Your task to perform on an android device: Clear the cart on bestbuy. Image 0: 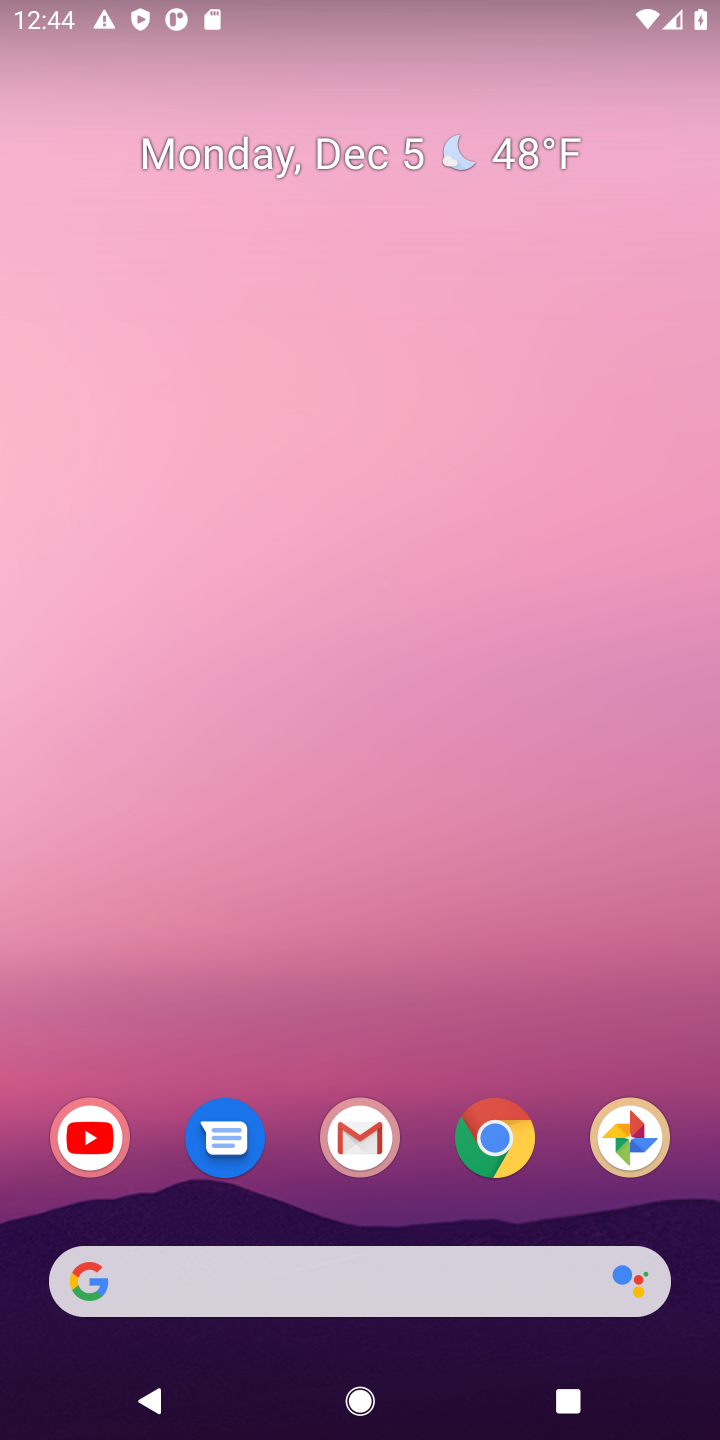
Step 0: click (494, 1115)
Your task to perform on an android device: Clear the cart on bestbuy. Image 1: 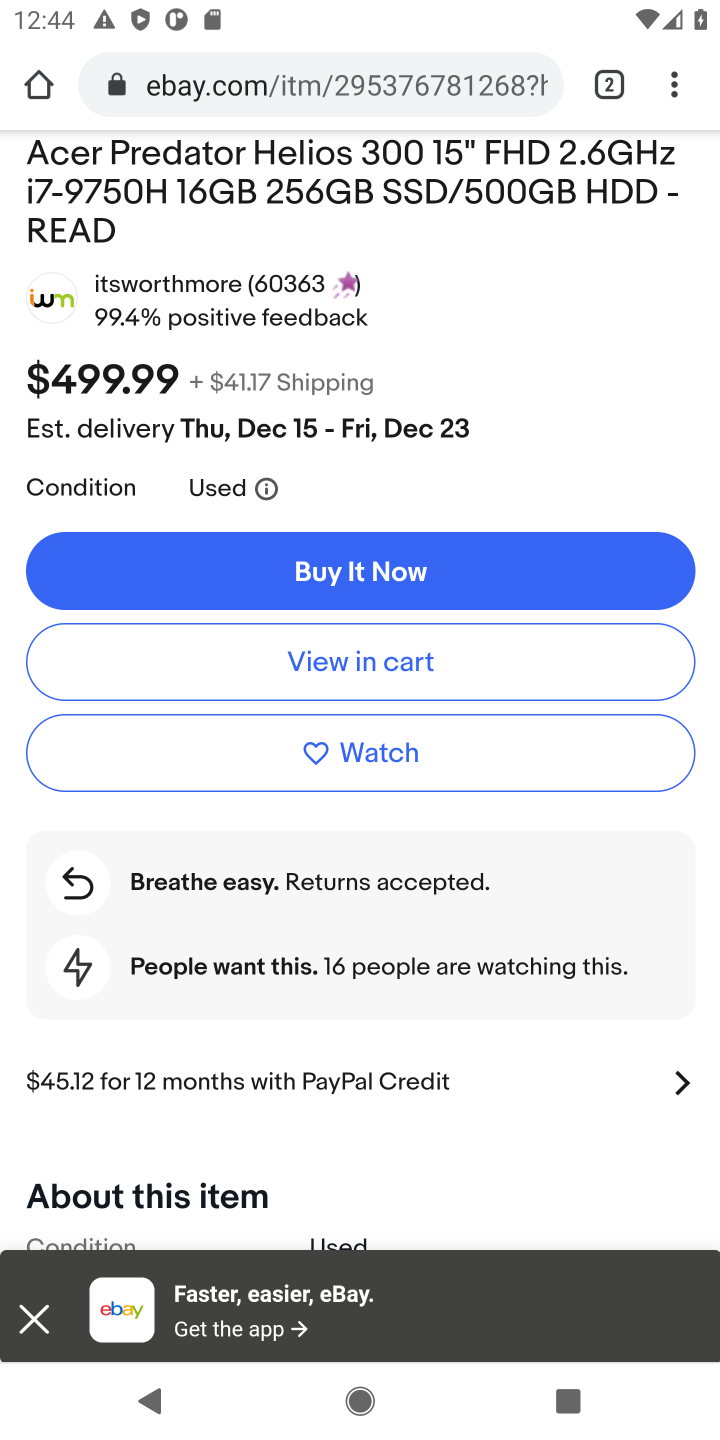
Step 1: drag from (438, 359) to (260, 1231)
Your task to perform on an android device: Clear the cart on bestbuy. Image 2: 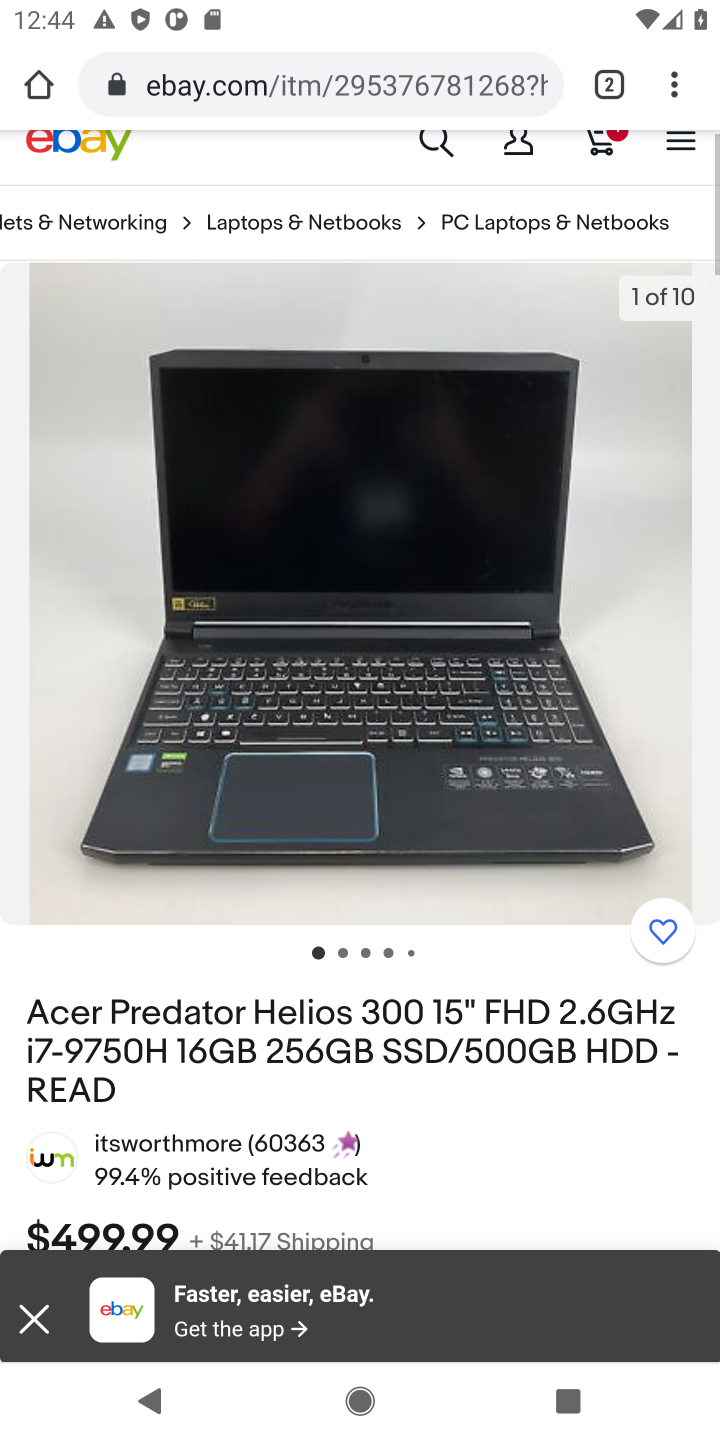
Step 2: click (456, 88)
Your task to perform on an android device: Clear the cart on bestbuy. Image 3: 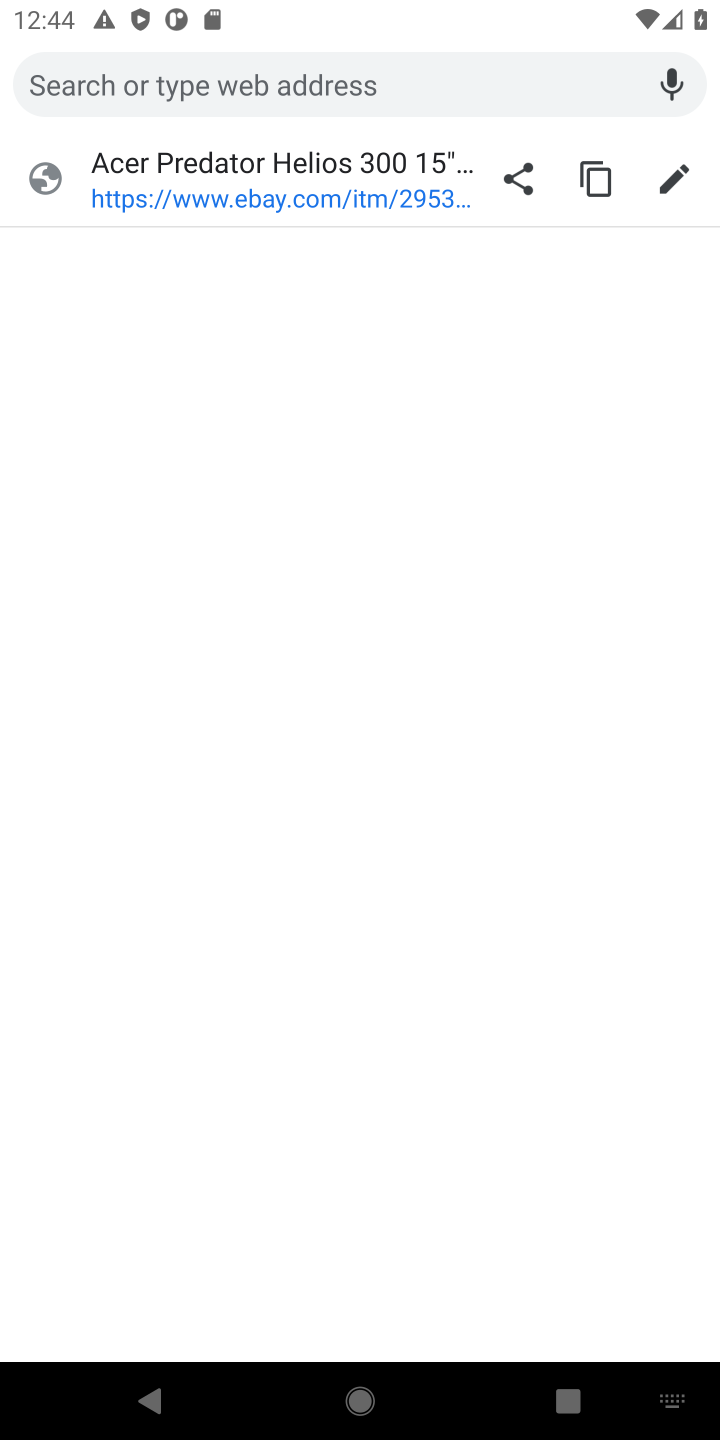
Step 3: type "bestbuy"
Your task to perform on an android device: Clear the cart on bestbuy. Image 4: 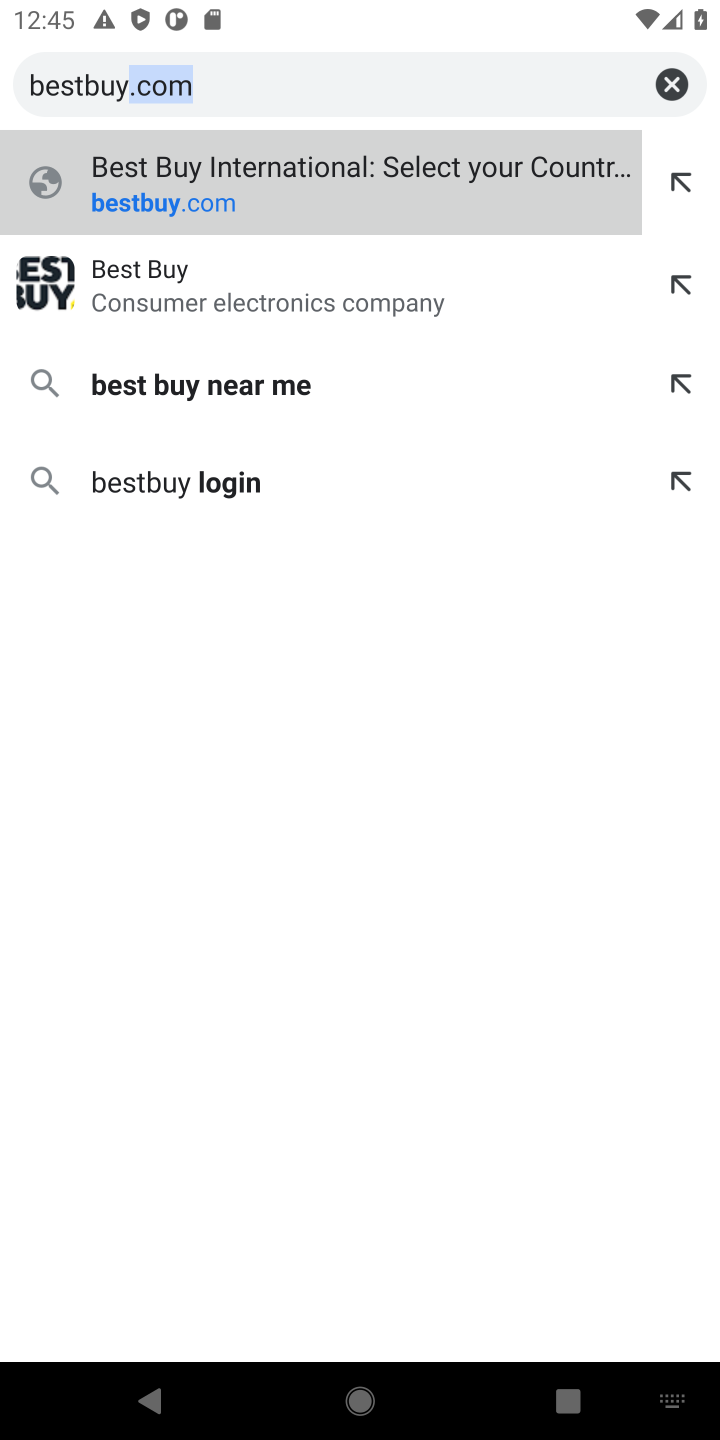
Step 4: click (115, 180)
Your task to perform on an android device: Clear the cart on bestbuy. Image 5: 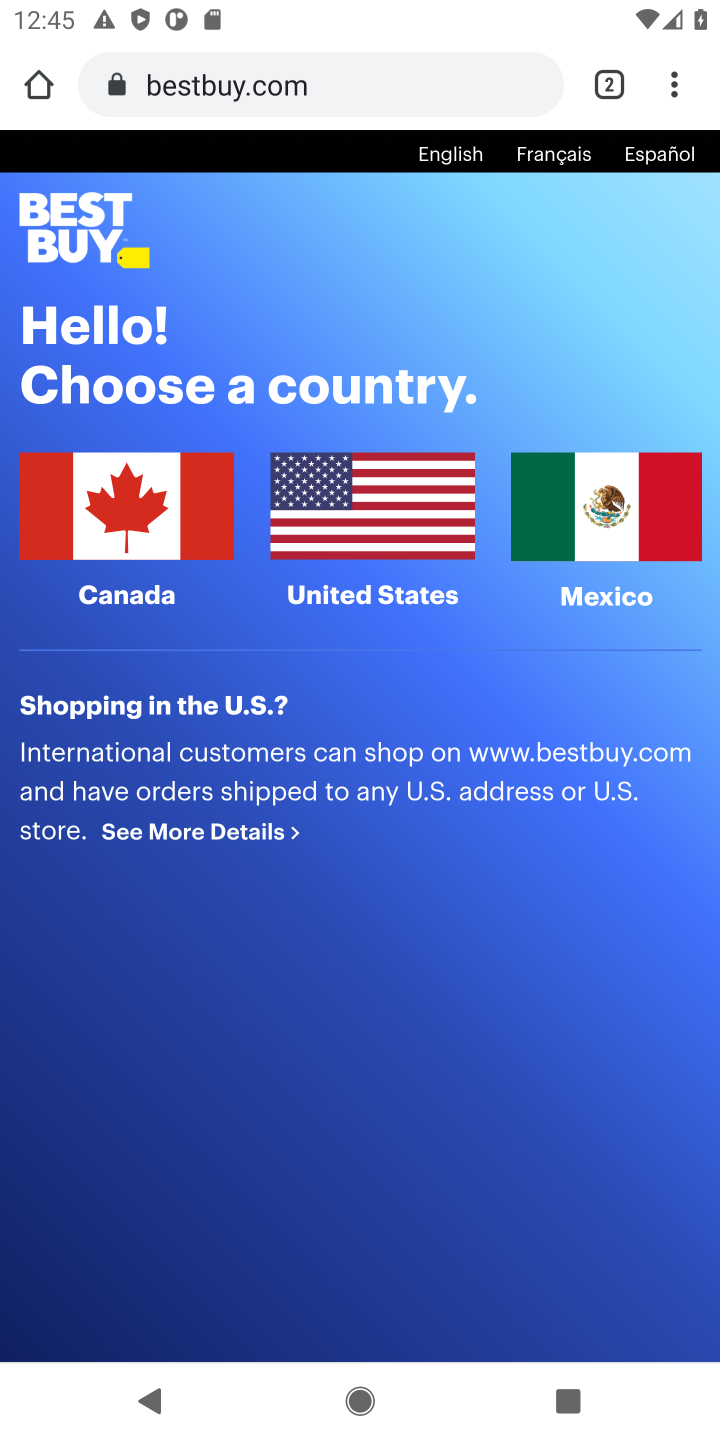
Step 5: click (382, 454)
Your task to perform on an android device: Clear the cart on bestbuy. Image 6: 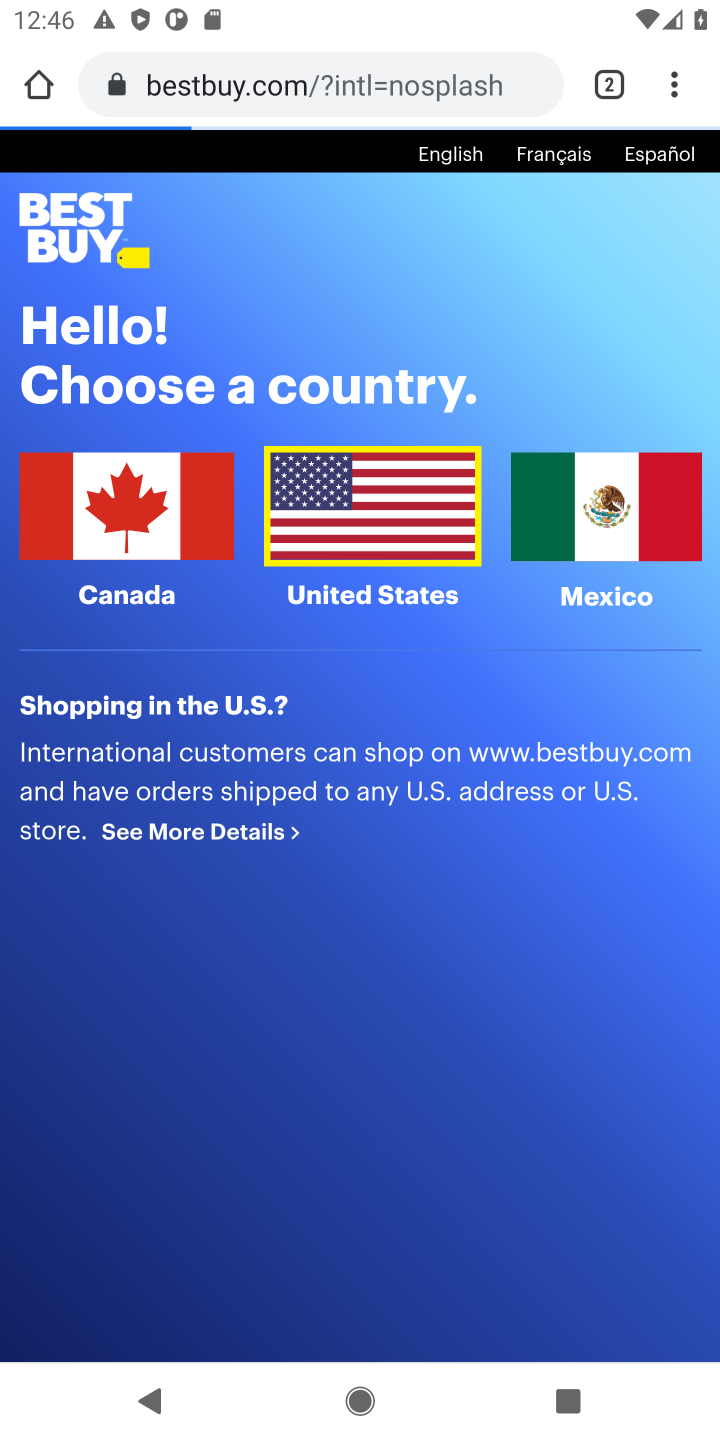
Step 6: click (382, 454)
Your task to perform on an android device: Clear the cart on bestbuy. Image 7: 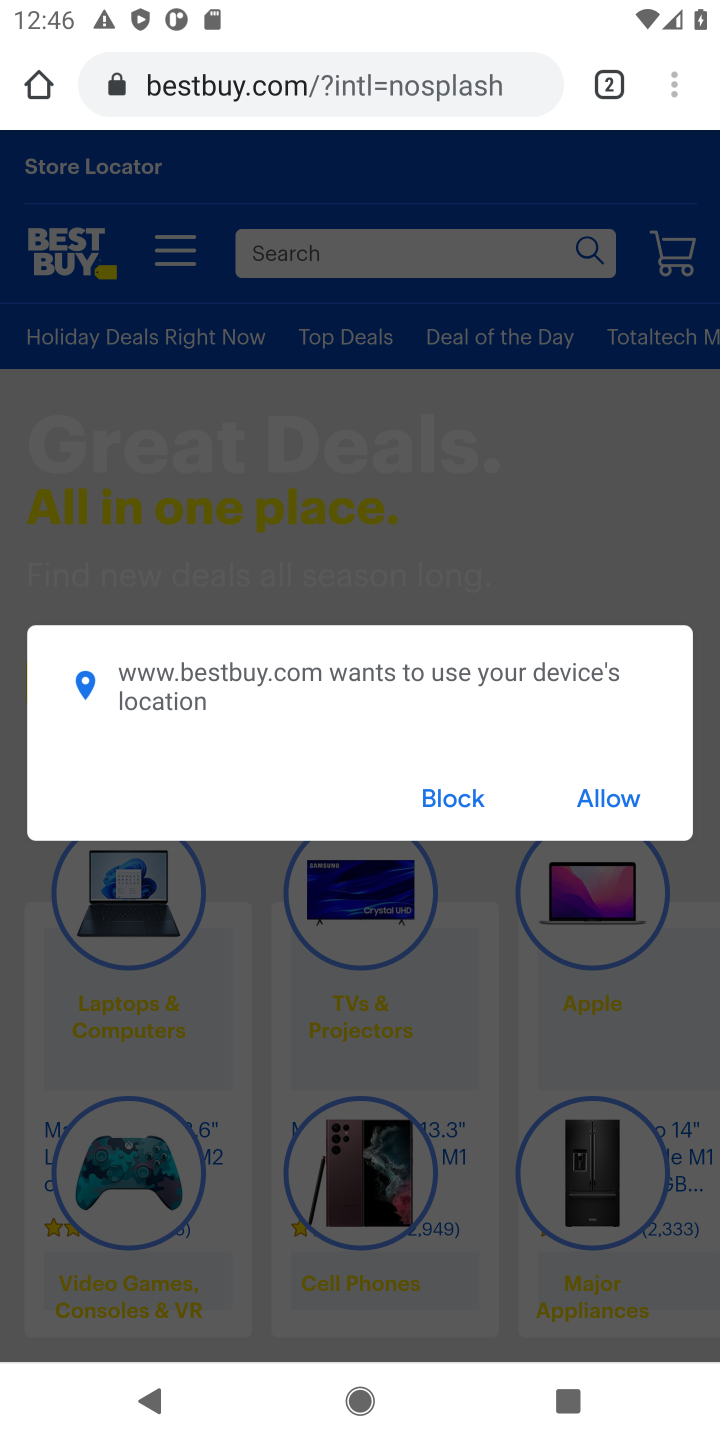
Step 7: click (662, 267)
Your task to perform on an android device: Clear the cart on bestbuy. Image 8: 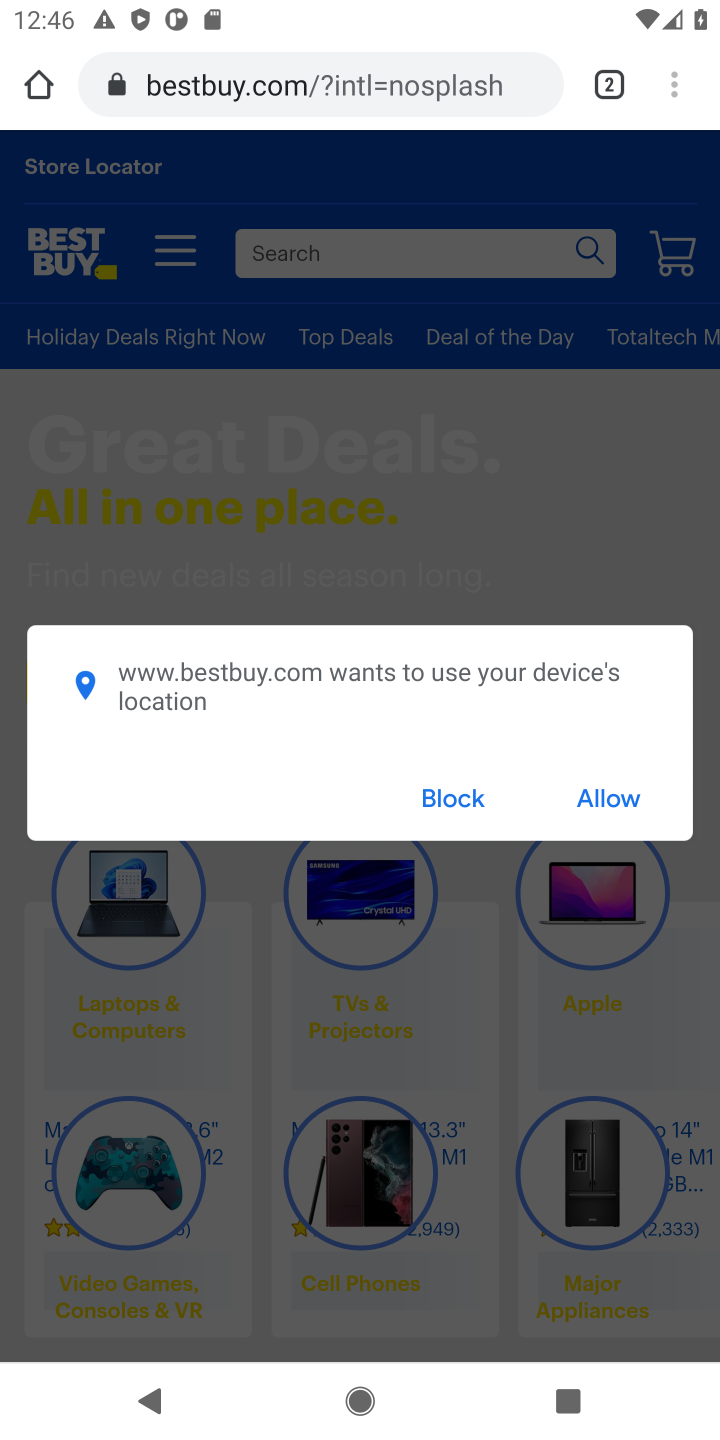
Step 8: click (606, 783)
Your task to perform on an android device: Clear the cart on bestbuy. Image 9: 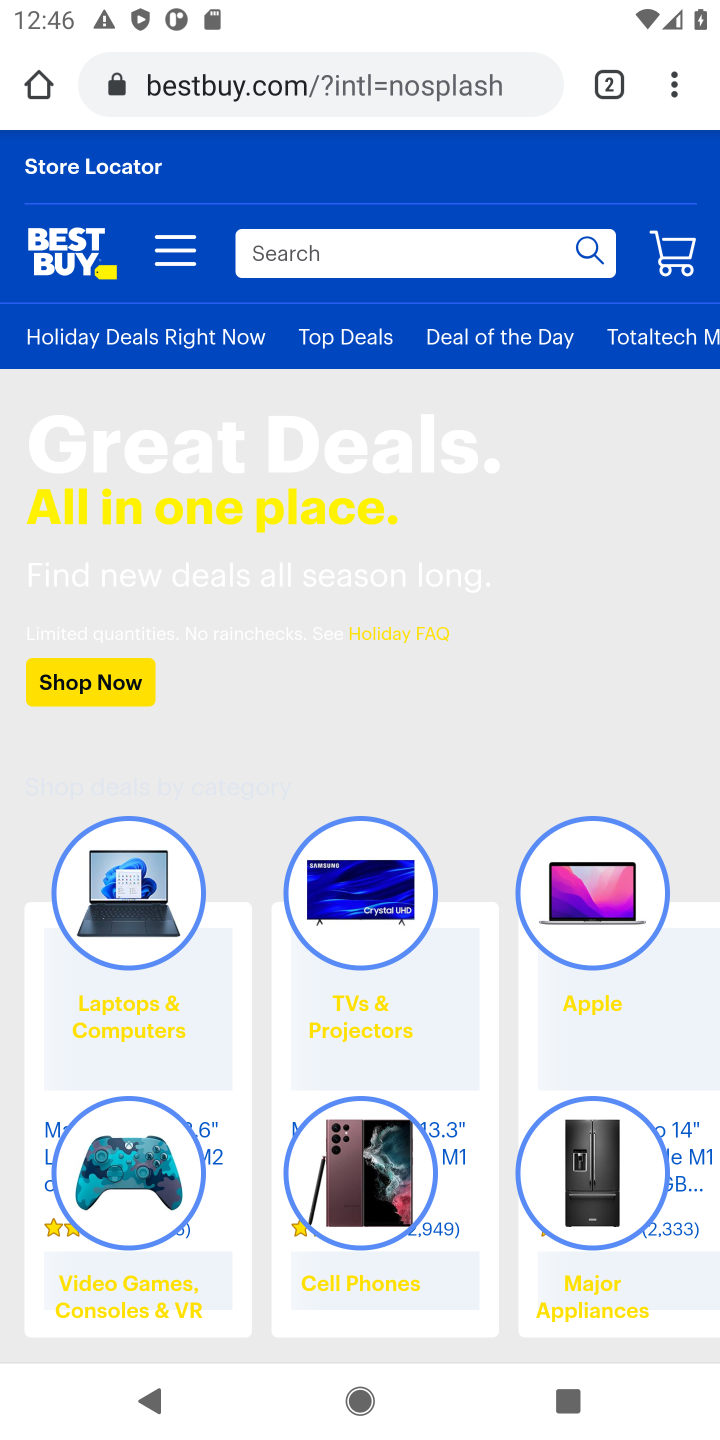
Step 9: click (606, 783)
Your task to perform on an android device: Clear the cart on bestbuy. Image 10: 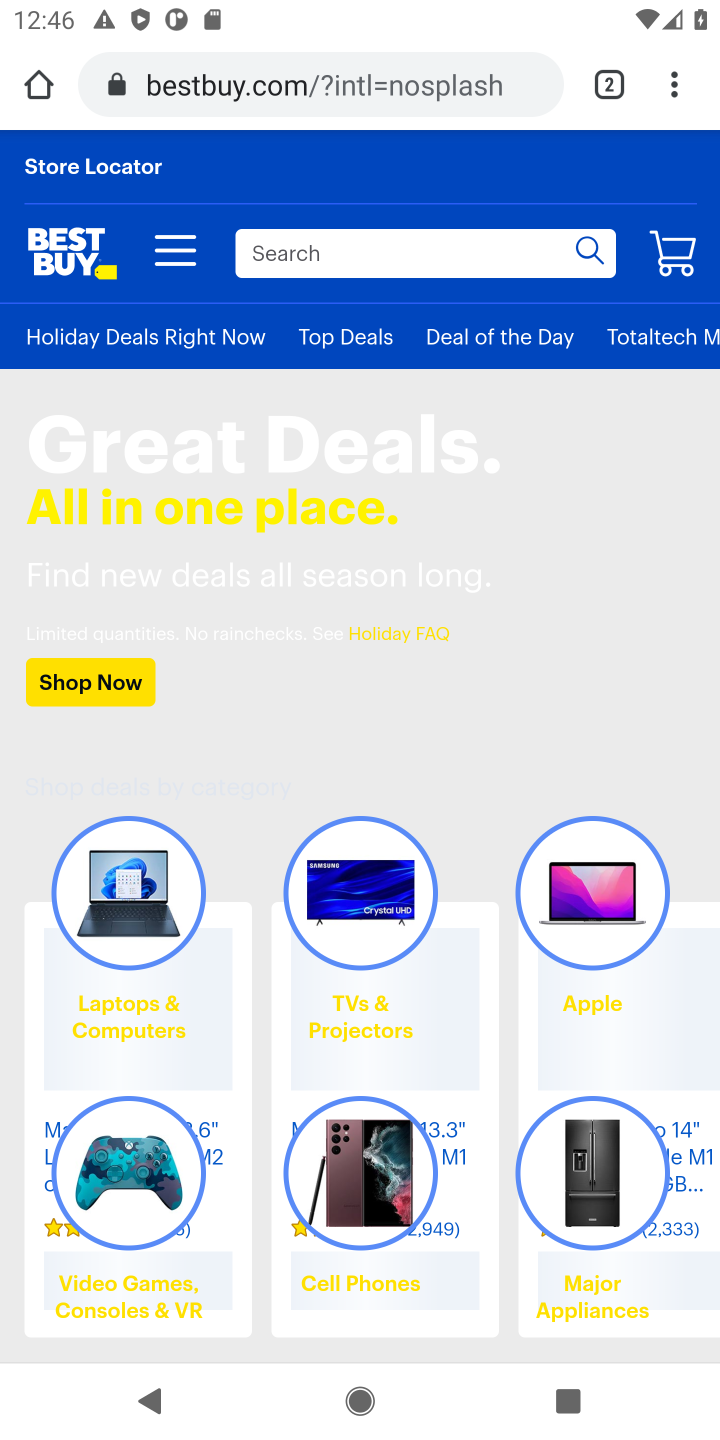
Step 10: click (681, 258)
Your task to perform on an android device: Clear the cart on bestbuy. Image 11: 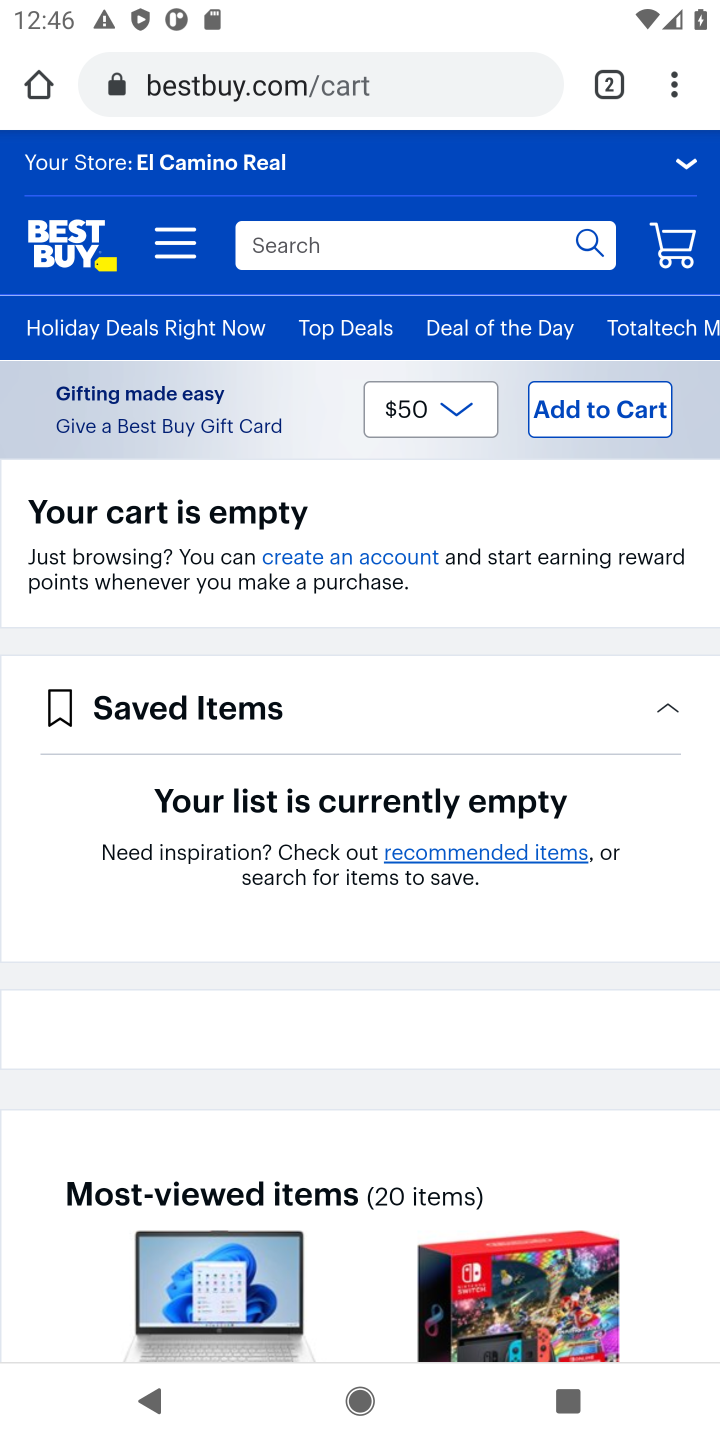
Step 11: task complete